Your task to perform on an android device: toggle javascript in the chrome app Image 0: 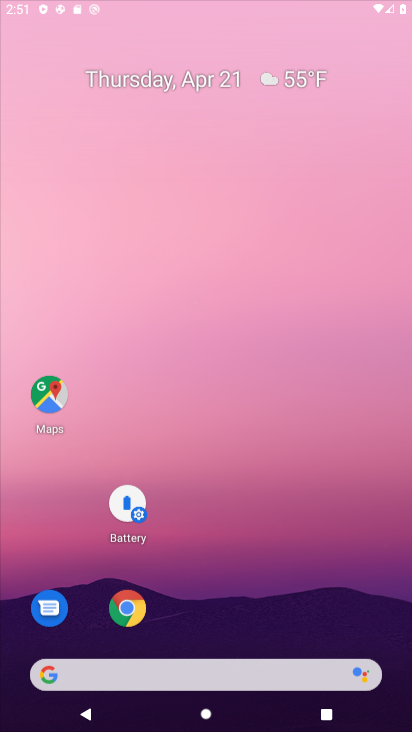
Step 0: click (266, 87)
Your task to perform on an android device: toggle javascript in the chrome app Image 1: 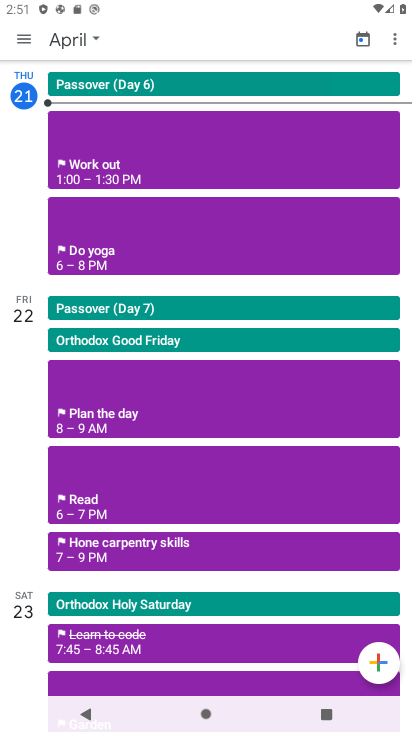
Step 1: drag from (283, 319) to (266, 118)
Your task to perform on an android device: toggle javascript in the chrome app Image 2: 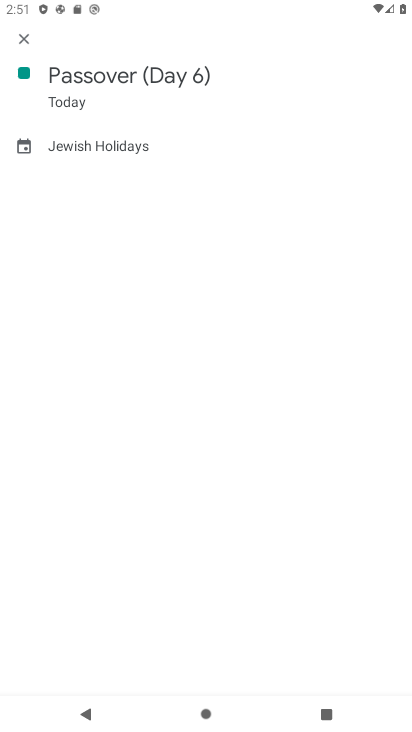
Step 2: click (401, 427)
Your task to perform on an android device: toggle javascript in the chrome app Image 3: 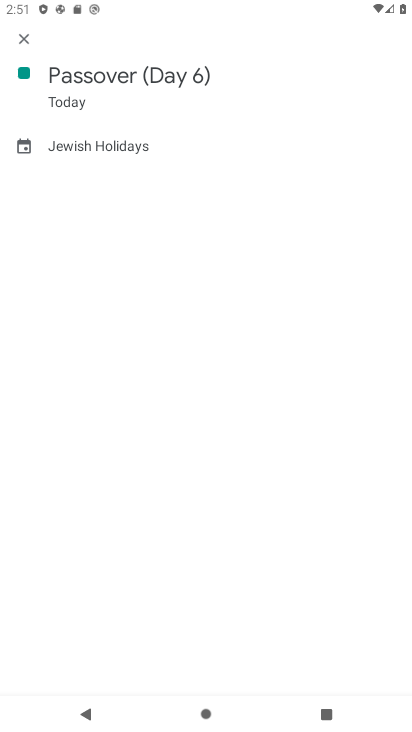
Step 3: press back button
Your task to perform on an android device: toggle javascript in the chrome app Image 4: 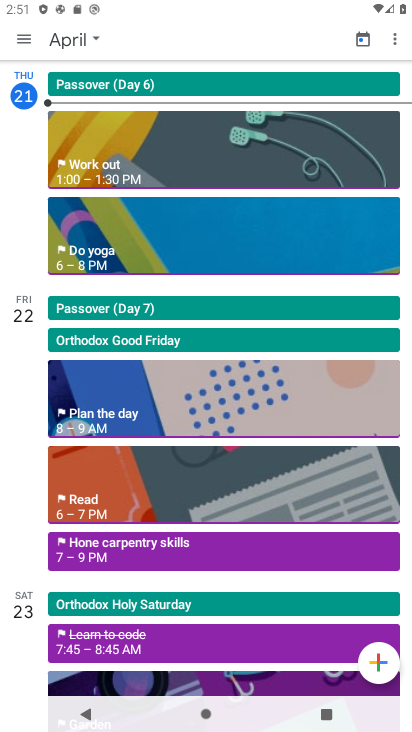
Step 4: click (387, 39)
Your task to perform on an android device: toggle javascript in the chrome app Image 5: 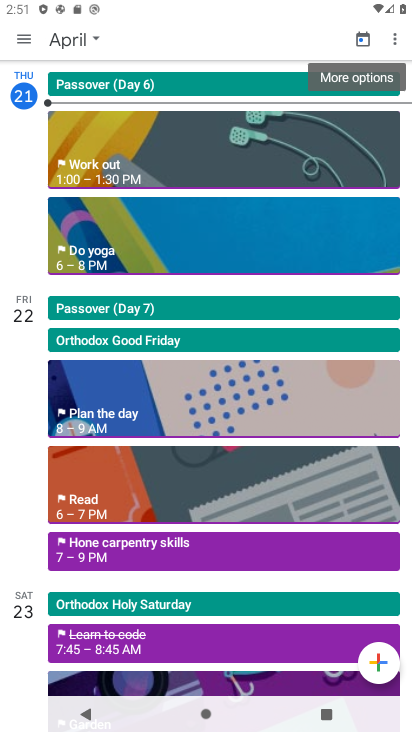
Step 5: press home button
Your task to perform on an android device: toggle javascript in the chrome app Image 6: 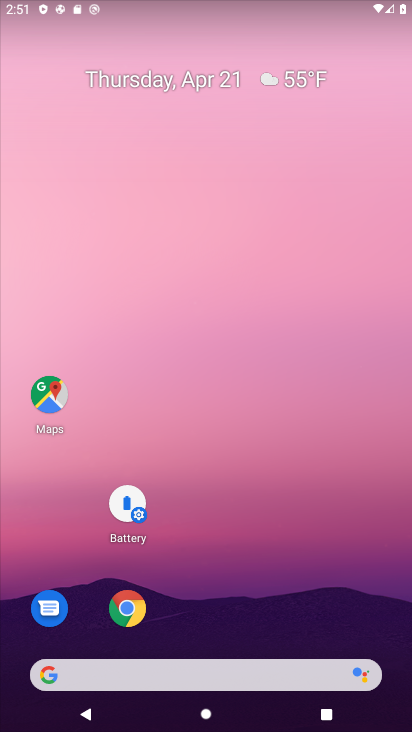
Step 6: drag from (367, 516) to (310, 163)
Your task to perform on an android device: toggle javascript in the chrome app Image 7: 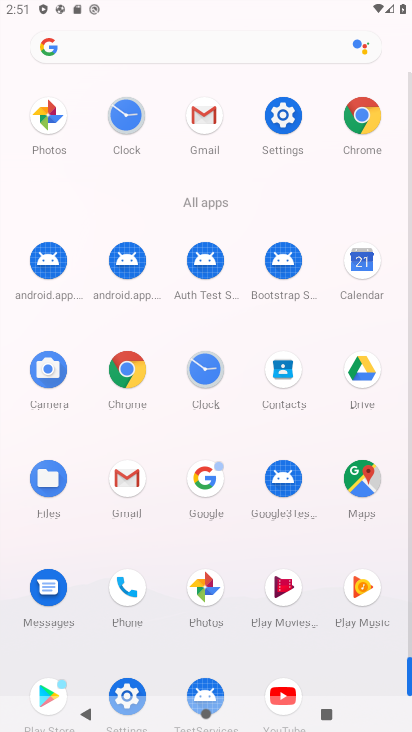
Step 7: click (380, 122)
Your task to perform on an android device: toggle javascript in the chrome app Image 8: 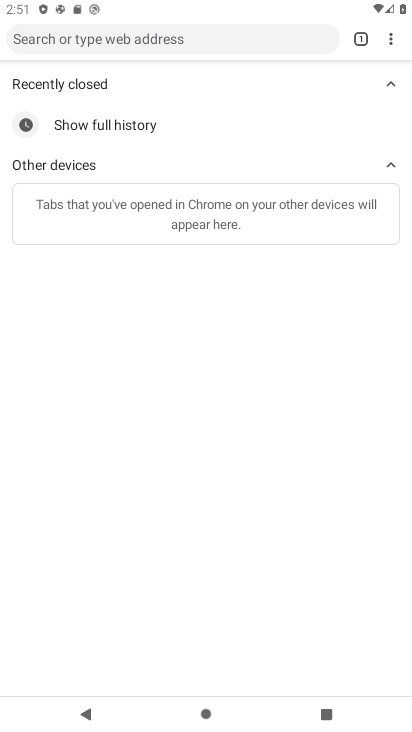
Step 8: drag from (395, 43) to (280, 329)
Your task to perform on an android device: toggle javascript in the chrome app Image 9: 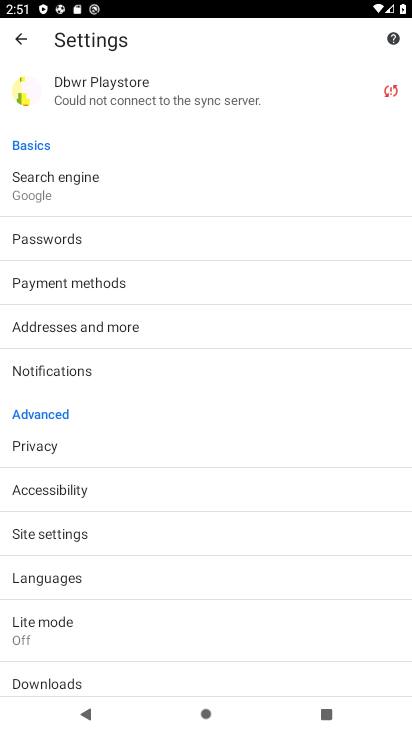
Step 9: click (82, 532)
Your task to perform on an android device: toggle javascript in the chrome app Image 10: 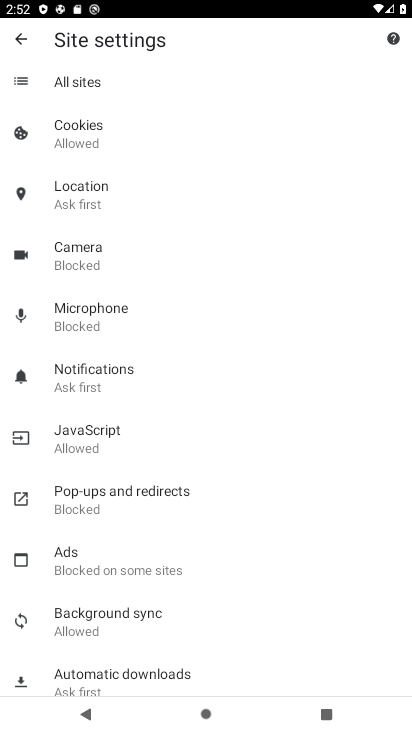
Step 10: click (85, 432)
Your task to perform on an android device: toggle javascript in the chrome app Image 11: 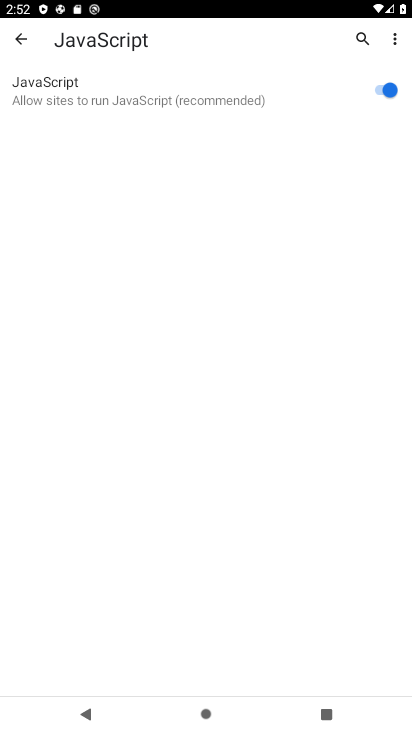
Step 11: click (379, 84)
Your task to perform on an android device: toggle javascript in the chrome app Image 12: 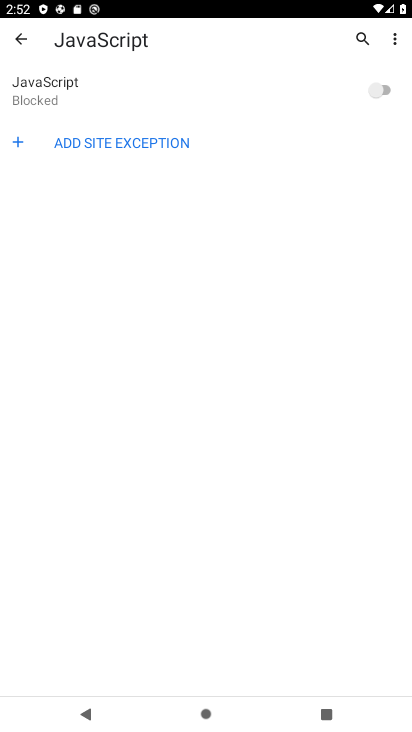
Step 12: task complete